Your task to perform on an android device: turn off javascript in the chrome app Image 0: 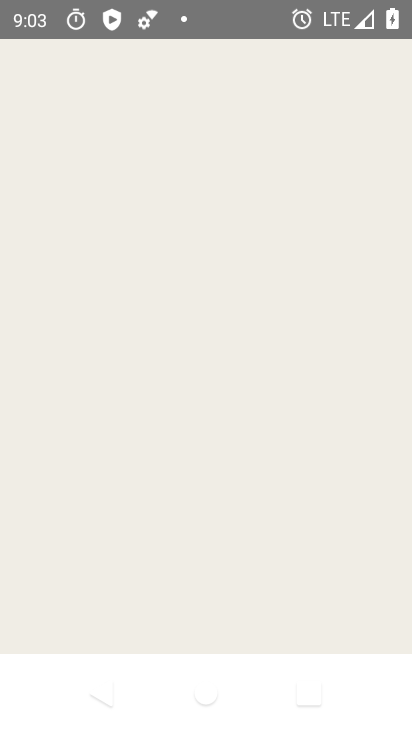
Step 0: click (212, 18)
Your task to perform on an android device: turn off javascript in the chrome app Image 1: 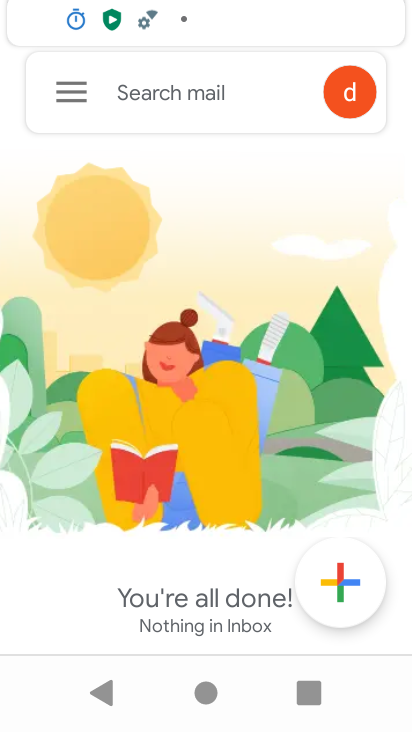
Step 1: drag from (229, 436) to (229, 121)
Your task to perform on an android device: turn off javascript in the chrome app Image 2: 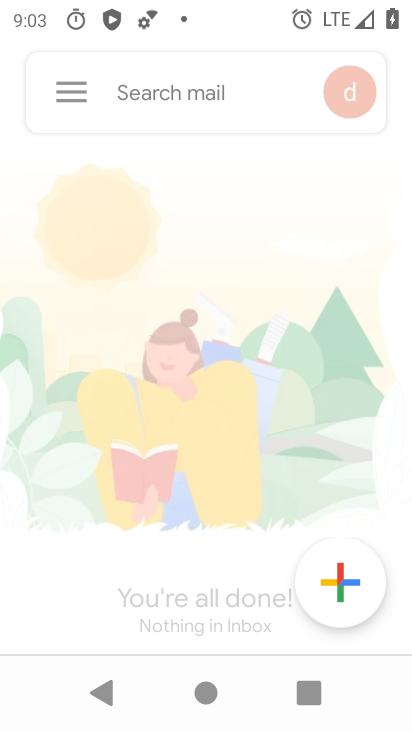
Step 2: drag from (243, 576) to (275, 122)
Your task to perform on an android device: turn off javascript in the chrome app Image 3: 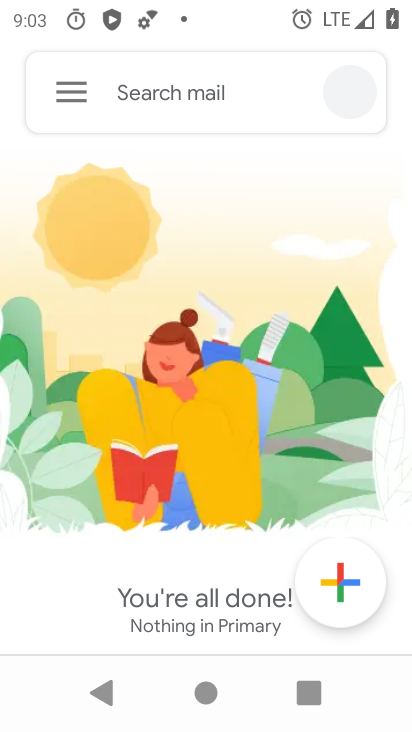
Step 3: click (57, 78)
Your task to perform on an android device: turn off javascript in the chrome app Image 4: 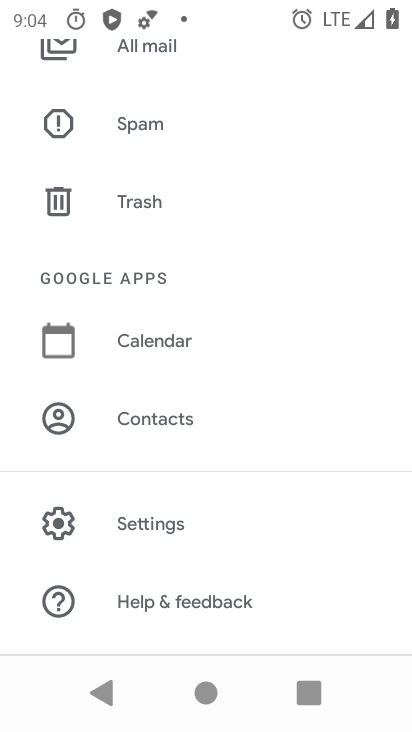
Step 4: press home button
Your task to perform on an android device: turn off javascript in the chrome app Image 5: 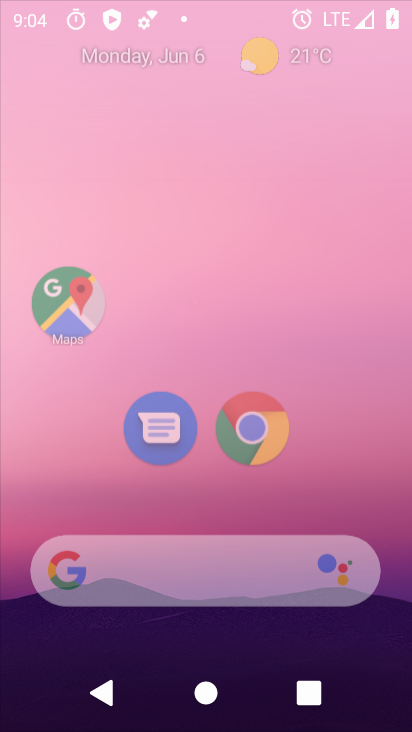
Step 5: drag from (228, 556) to (294, 135)
Your task to perform on an android device: turn off javascript in the chrome app Image 6: 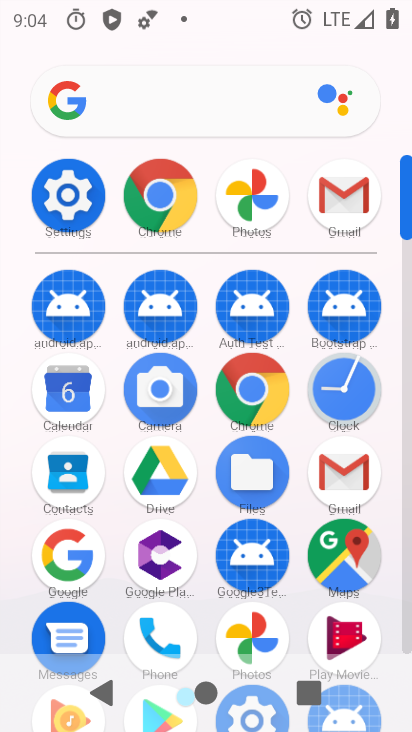
Step 6: click (166, 172)
Your task to perform on an android device: turn off javascript in the chrome app Image 7: 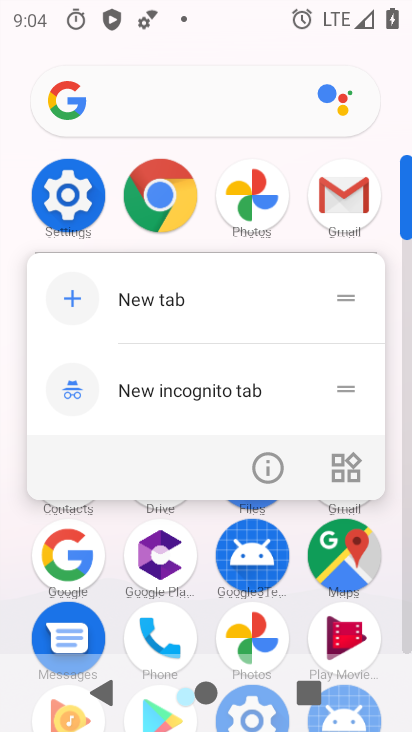
Step 7: click (261, 471)
Your task to perform on an android device: turn off javascript in the chrome app Image 8: 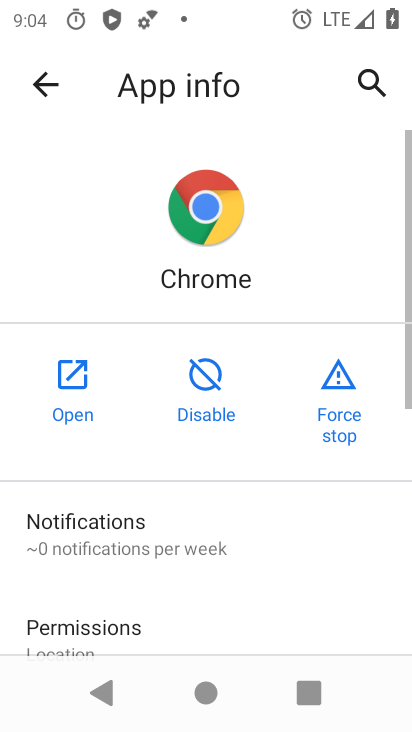
Step 8: click (52, 377)
Your task to perform on an android device: turn off javascript in the chrome app Image 9: 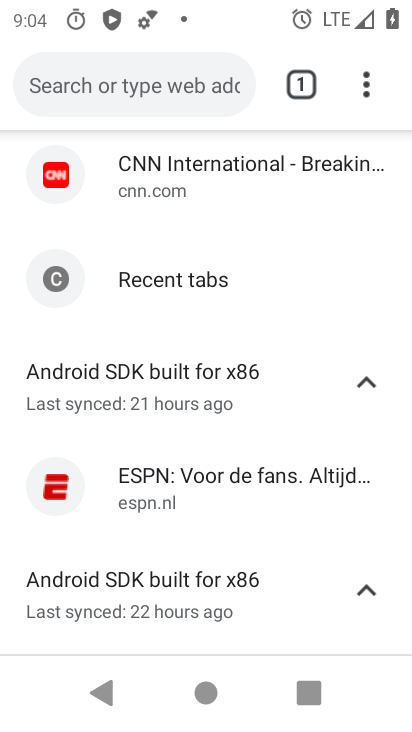
Step 9: click (382, 85)
Your task to perform on an android device: turn off javascript in the chrome app Image 10: 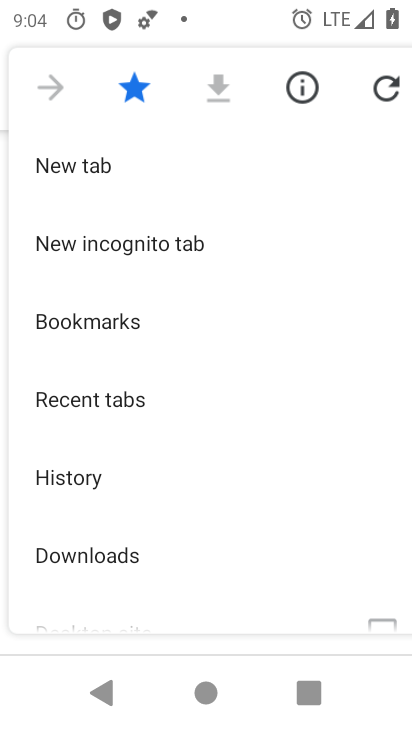
Step 10: drag from (159, 506) to (252, 105)
Your task to perform on an android device: turn off javascript in the chrome app Image 11: 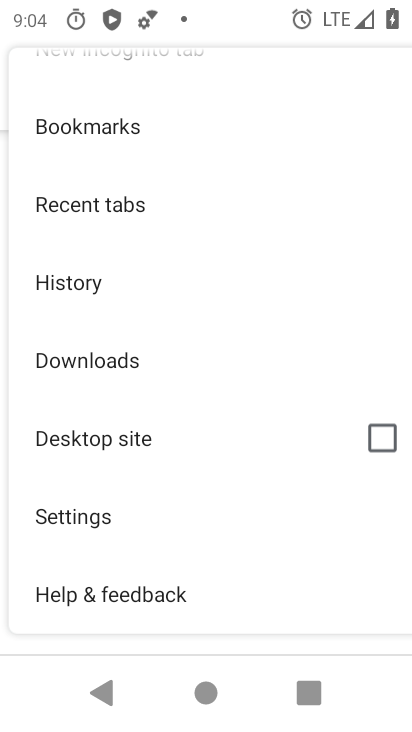
Step 11: click (104, 501)
Your task to perform on an android device: turn off javascript in the chrome app Image 12: 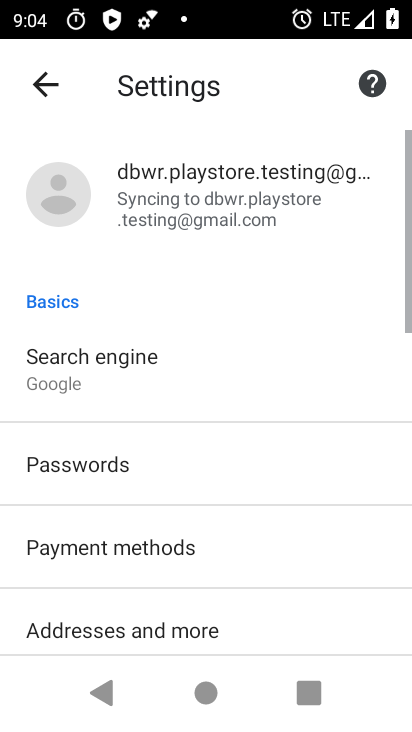
Step 12: drag from (256, 459) to (335, 140)
Your task to perform on an android device: turn off javascript in the chrome app Image 13: 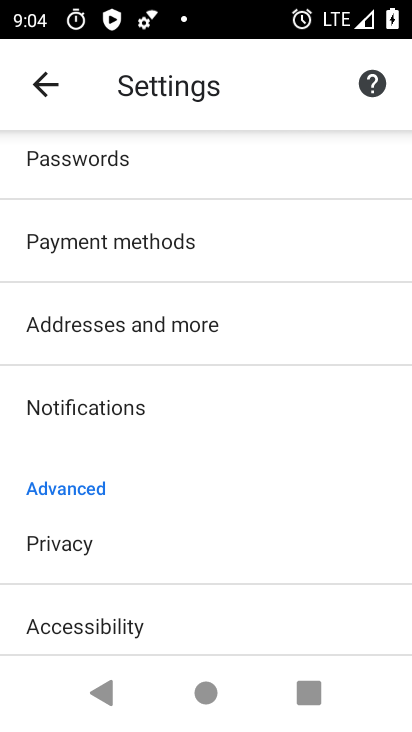
Step 13: drag from (159, 576) to (216, 155)
Your task to perform on an android device: turn off javascript in the chrome app Image 14: 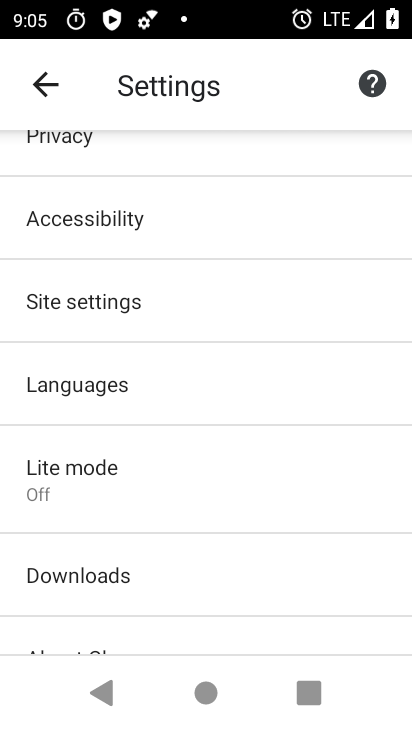
Step 14: click (175, 309)
Your task to perform on an android device: turn off javascript in the chrome app Image 15: 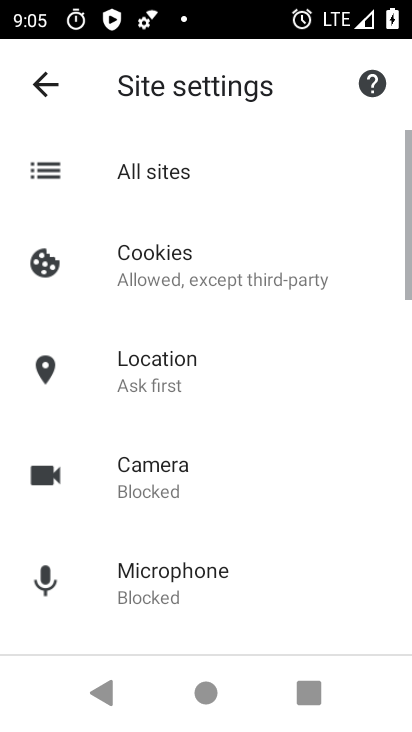
Step 15: drag from (186, 509) to (260, 154)
Your task to perform on an android device: turn off javascript in the chrome app Image 16: 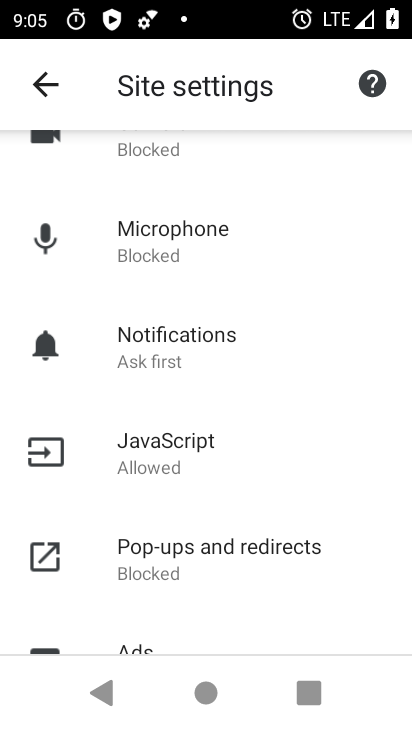
Step 16: click (182, 441)
Your task to perform on an android device: turn off javascript in the chrome app Image 17: 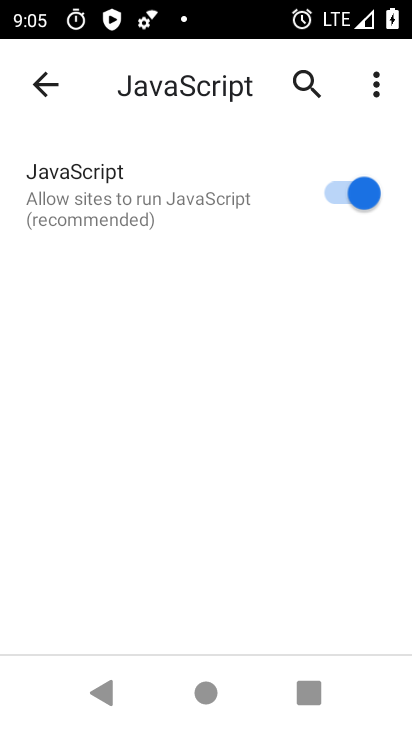
Step 17: click (364, 201)
Your task to perform on an android device: turn off javascript in the chrome app Image 18: 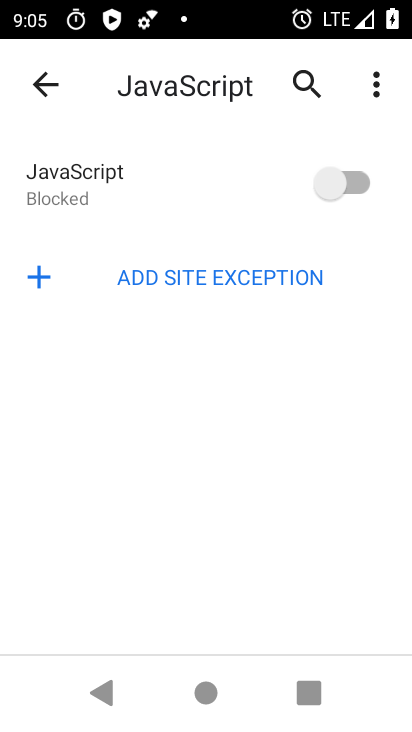
Step 18: task complete